Your task to perform on an android device: open app "Venmo" (install if not already installed) Image 0: 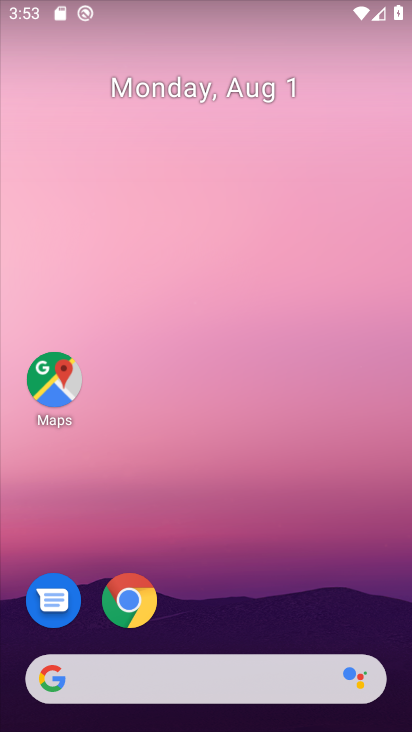
Step 0: drag from (294, 623) to (170, 135)
Your task to perform on an android device: open app "Venmo" (install if not already installed) Image 1: 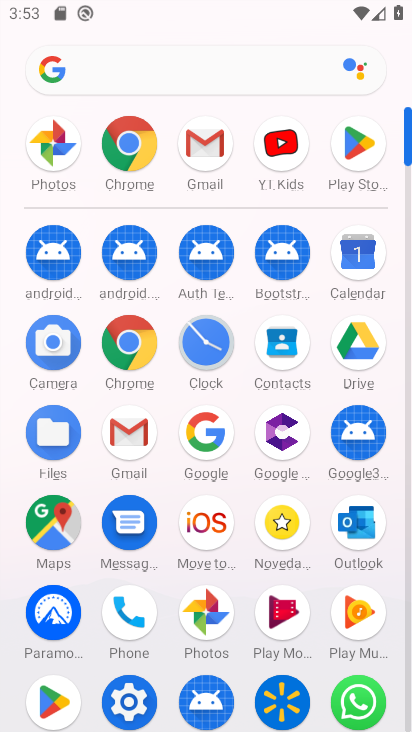
Step 1: click (378, 147)
Your task to perform on an android device: open app "Venmo" (install if not already installed) Image 2: 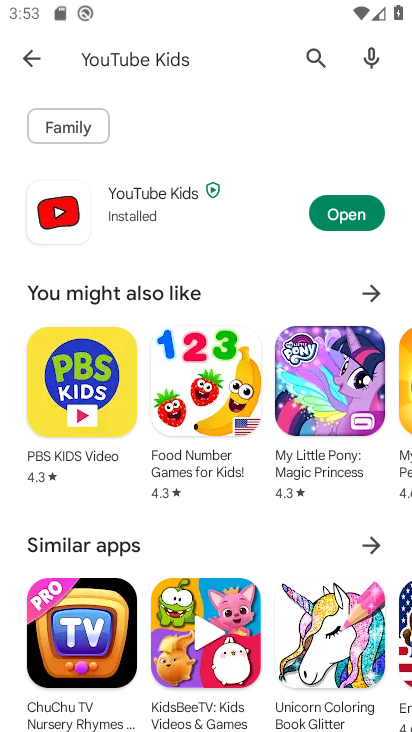
Step 2: click (198, 62)
Your task to perform on an android device: open app "Venmo" (install if not already installed) Image 3: 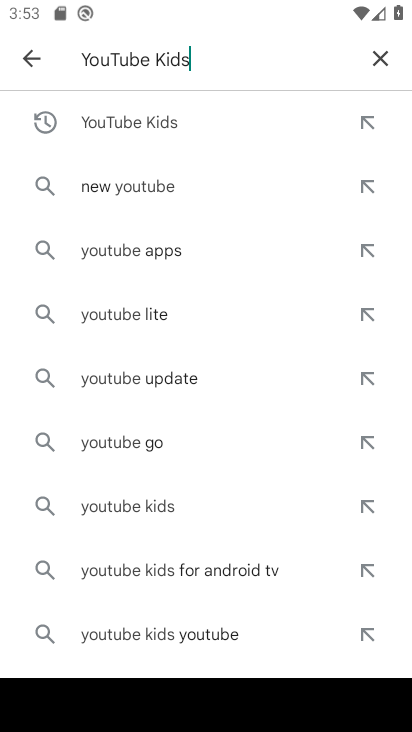
Step 3: click (381, 63)
Your task to perform on an android device: open app "Venmo" (install if not already installed) Image 4: 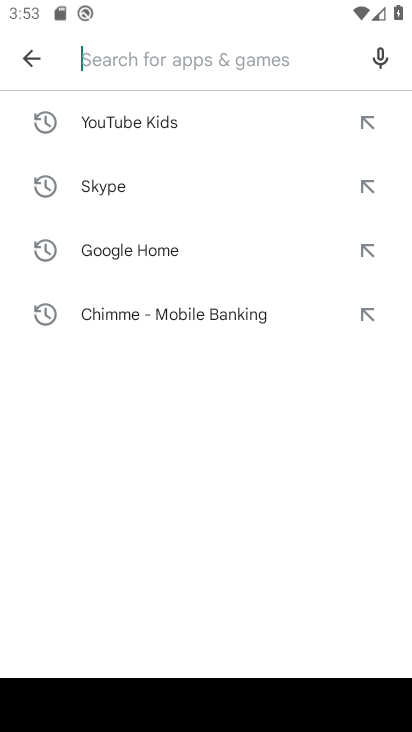
Step 4: type "Venmo"
Your task to perform on an android device: open app "Venmo" (install if not already installed) Image 5: 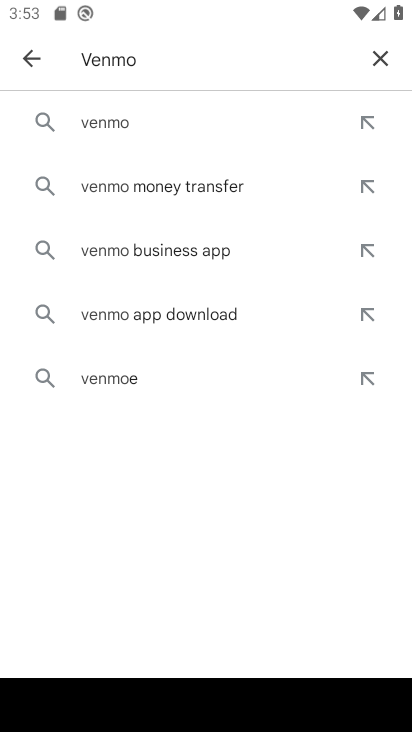
Step 5: press enter
Your task to perform on an android device: open app "Venmo" (install if not already installed) Image 6: 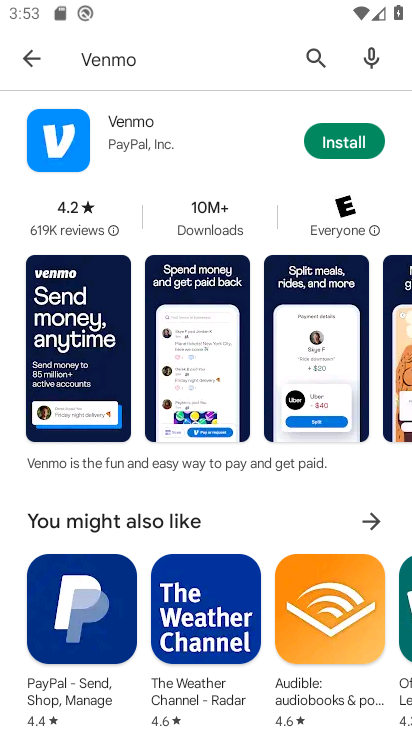
Step 6: click (352, 144)
Your task to perform on an android device: open app "Venmo" (install if not already installed) Image 7: 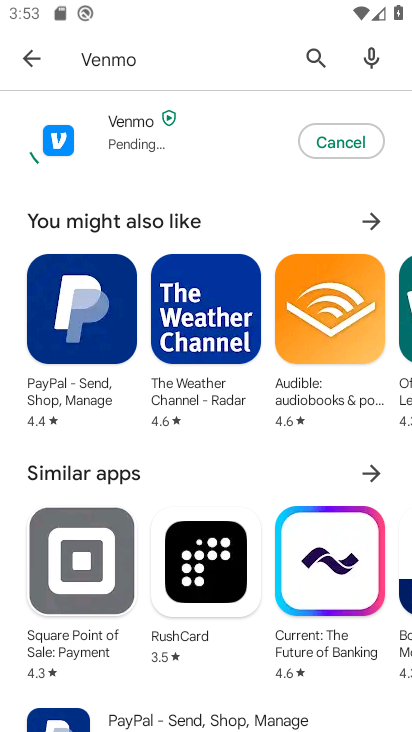
Step 7: click (191, 118)
Your task to perform on an android device: open app "Venmo" (install if not already installed) Image 8: 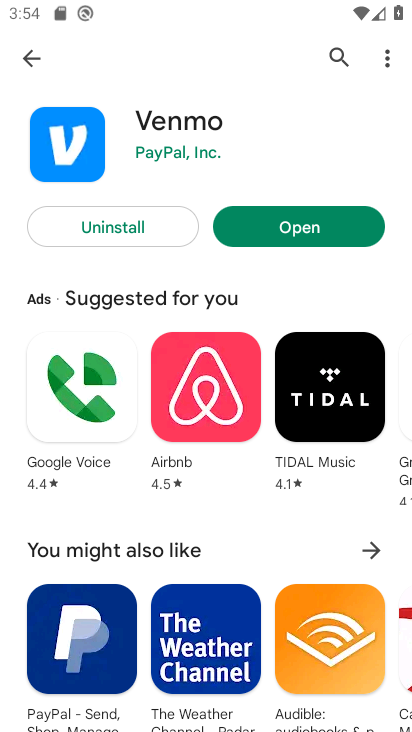
Step 8: click (322, 224)
Your task to perform on an android device: open app "Venmo" (install if not already installed) Image 9: 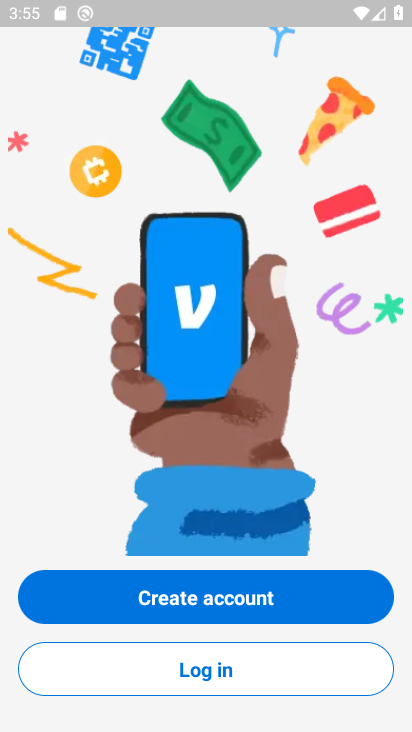
Step 9: task complete